Your task to perform on an android device: Show me popular games on the Play Store Image 0: 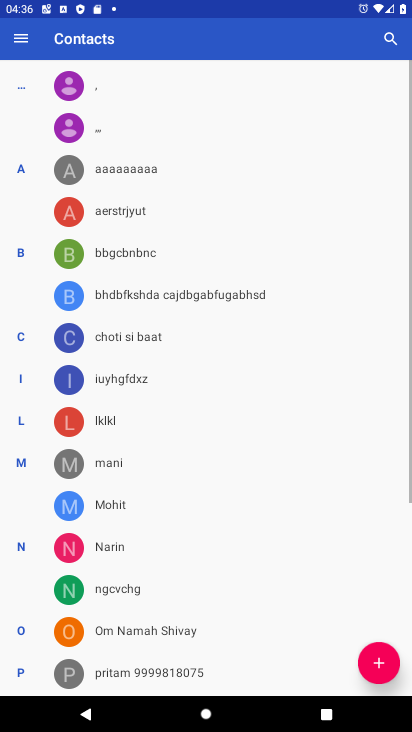
Step 0: drag from (189, 633) to (215, 33)
Your task to perform on an android device: Show me popular games on the Play Store Image 1: 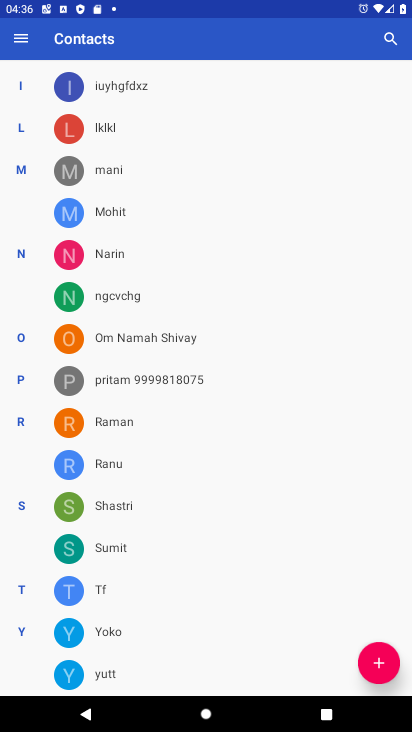
Step 1: press home button
Your task to perform on an android device: Show me popular games on the Play Store Image 2: 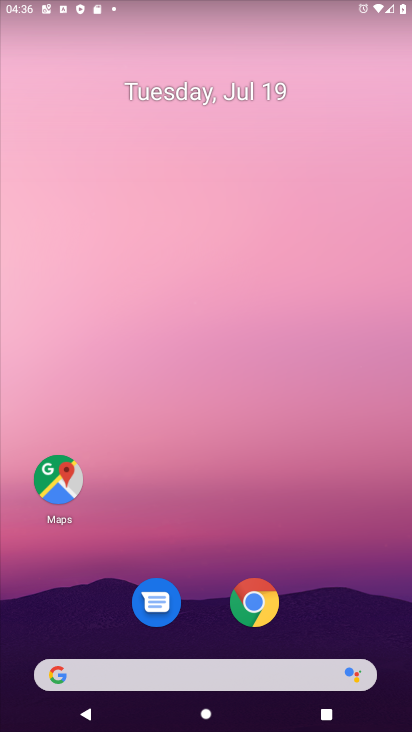
Step 2: drag from (186, 627) to (178, 70)
Your task to perform on an android device: Show me popular games on the Play Store Image 3: 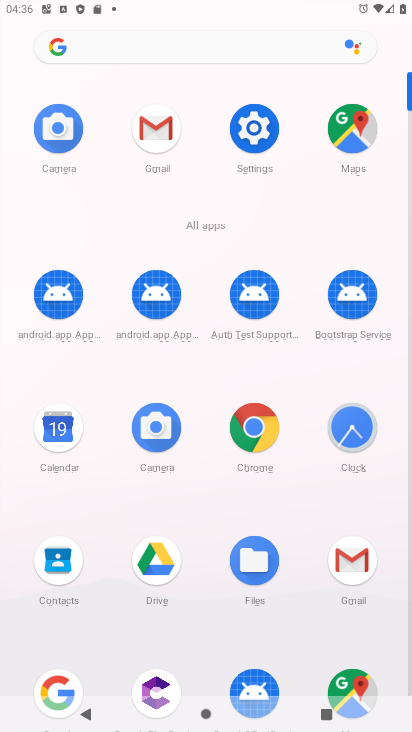
Step 3: drag from (163, 610) to (143, 16)
Your task to perform on an android device: Show me popular games on the Play Store Image 4: 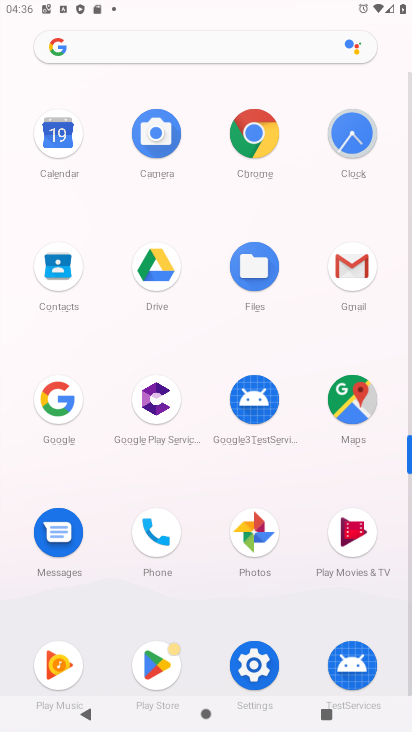
Step 4: click (160, 648)
Your task to perform on an android device: Show me popular games on the Play Store Image 5: 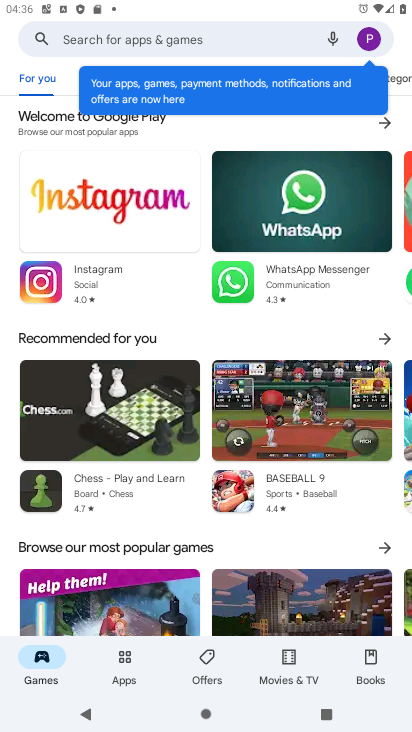
Step 5: click (4, 163)
Your task to perform on an android device: Show me popular games on the Play Store Image 6: 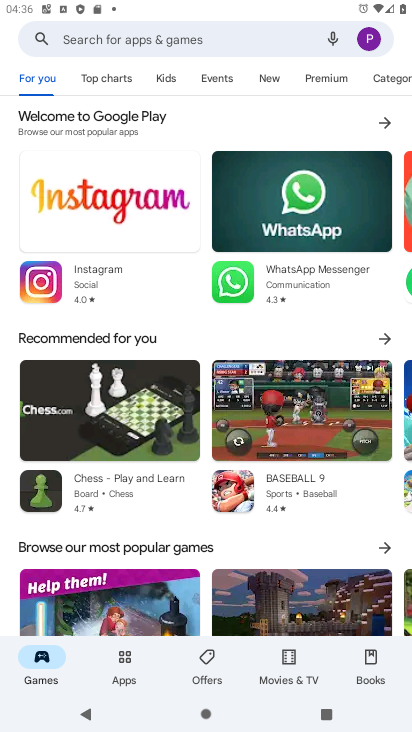
Step 6: click (116, 86)
Your task to perform on an android device: Show me popular games on the Play Store Image 7: 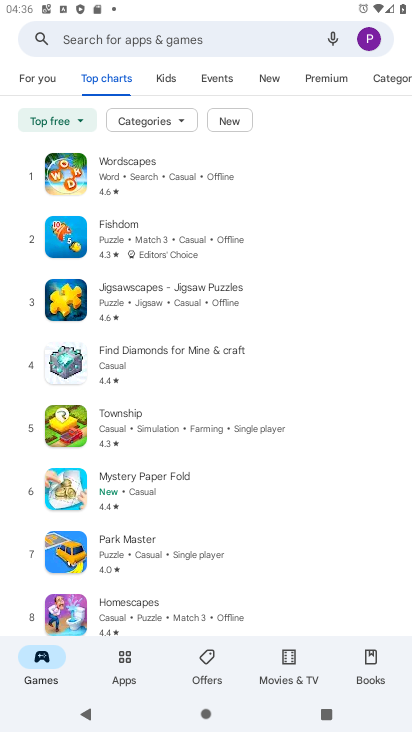
Step 7: task complete